Your task to perform on an android device: Go to wifi settings Image 0: 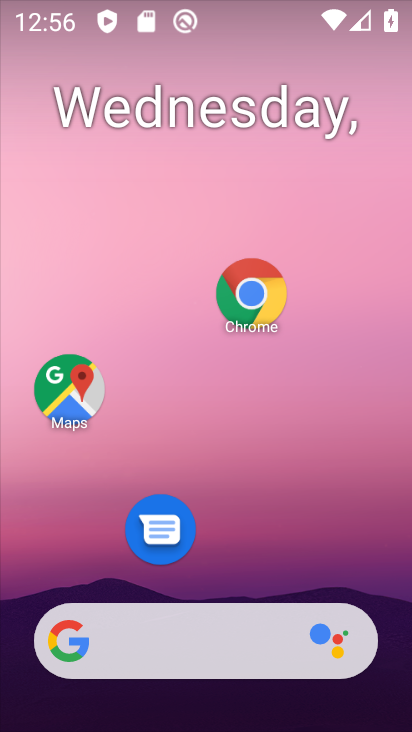
Step 0: drag from (191, 527) to (182, 110)
Your task to perform on an android device: Go to wifi settings Image 1: 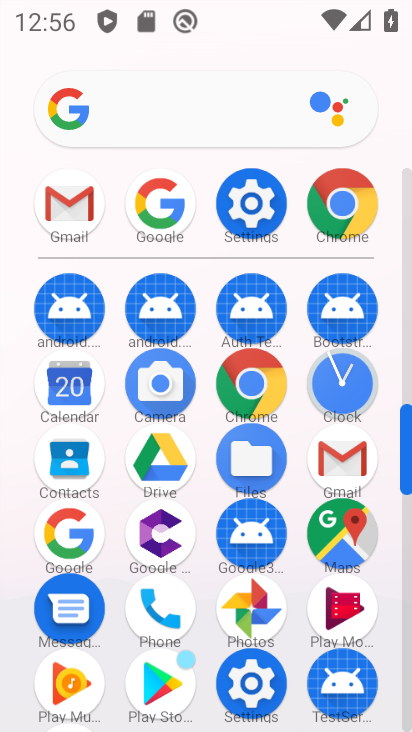
Step 1: click (266, 199)
Your task to perform on an android device: Go to wifi settings Image 2: 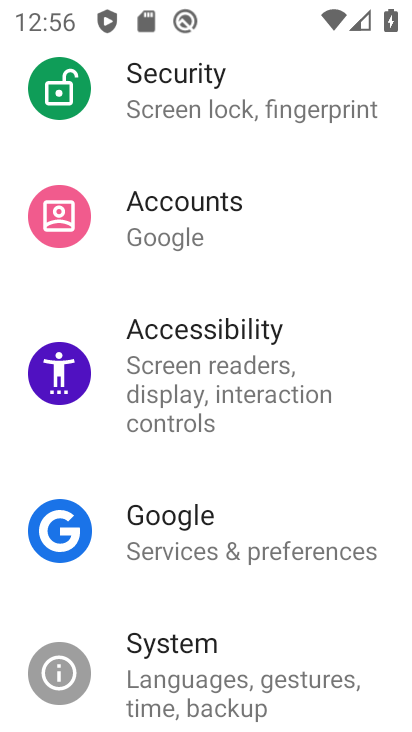
Step 2: drag from (266, 201) to (221, 631)
Your task to perform on an android device: Go to wifi settings Image 3: 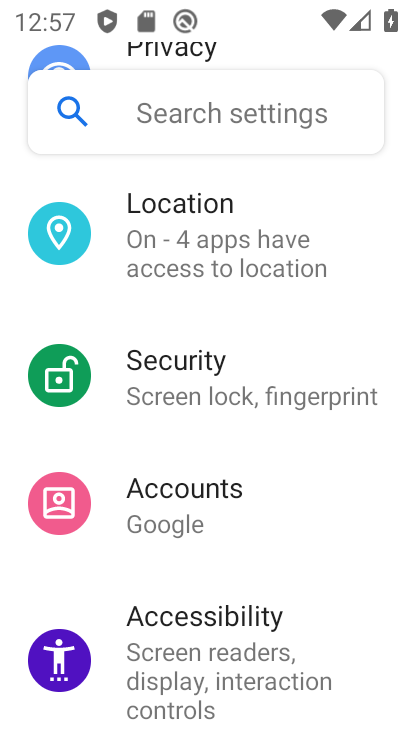
Step 3: drag from (299, 335) to (139, 625)
Your task to perform on an android device: Go to wifi settings Image 4: 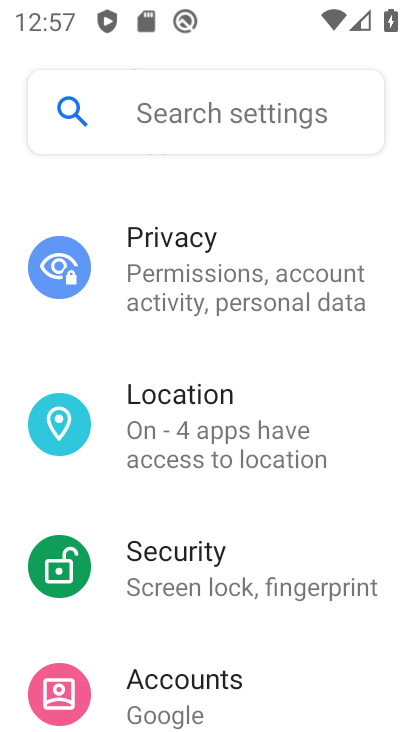
Step 4: drag from (257, 320) to (210, 643)
Your task to perform on an android device: Go to wifi settings Image 5: 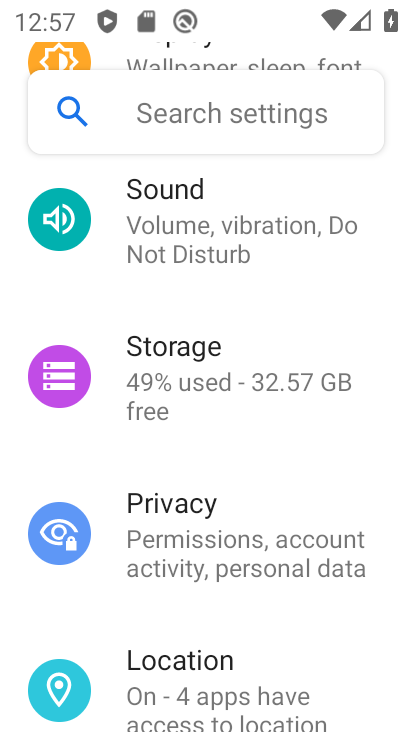
Step 5: drag from (282, 323) to (294, 721)
Your task to perform on an android device: Go to wifi settings Image 6: 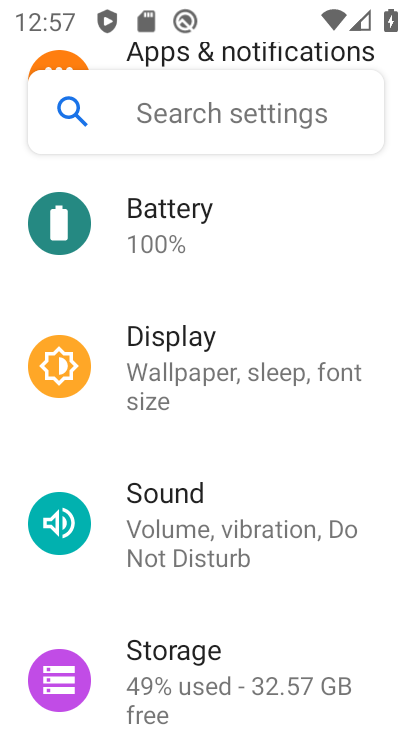
Step 6: drag from (162, 292) to (137, 603)
Your task to perform on an android device: Go to wifi settings Image 7: 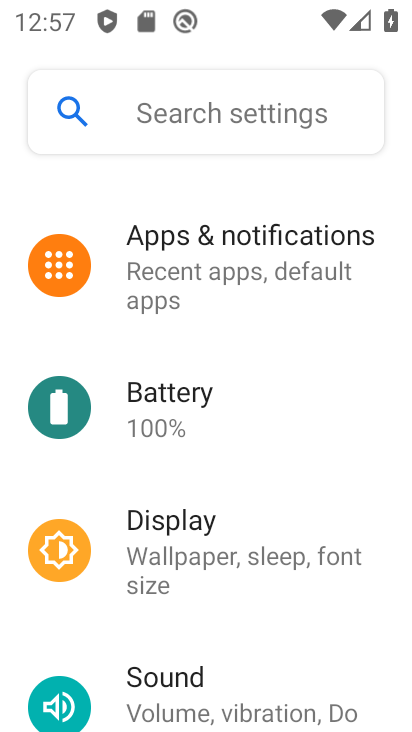
Step 7: drag from (204, 294) to (164, 589)
Your task to perform on an android device: Go to wifi settings Image 8: 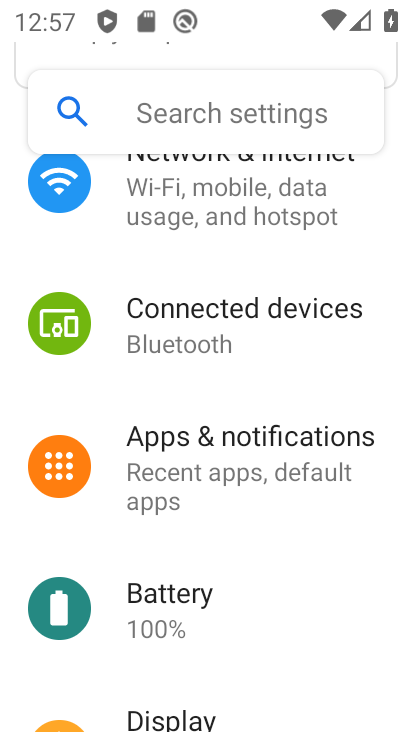
Step 8: drag from (229, 386) to (177, 604)
Your task to perform on an android device: Go to wifi settings Image 9: 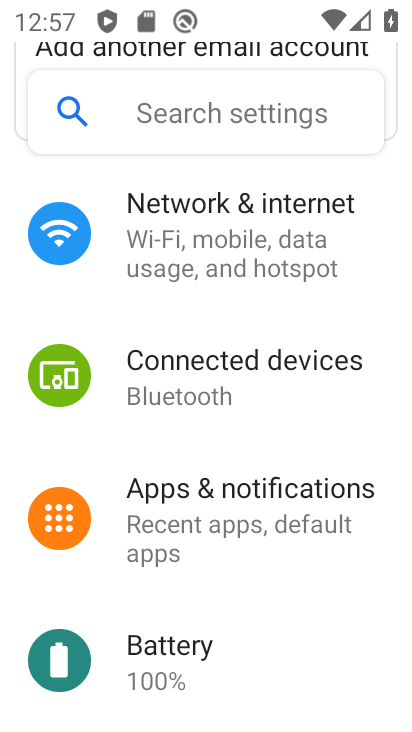
Step 9: drag from (235, 327) to (144, 648)
Your task to perform on an android device: Go to wifi settings Image 10: 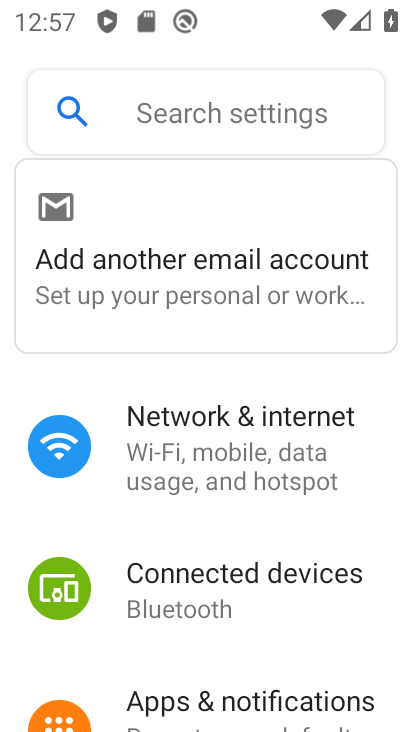
Step 10: click (154, 451)
Your task to perform on an android device: Go to wifi settings Image 11: 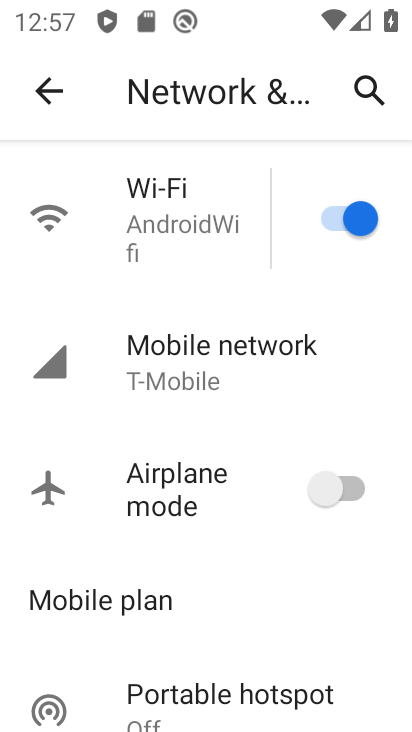
Step 11: click (172, 189)
Your task to perform on an android device: Go to wifi settings Image 12: 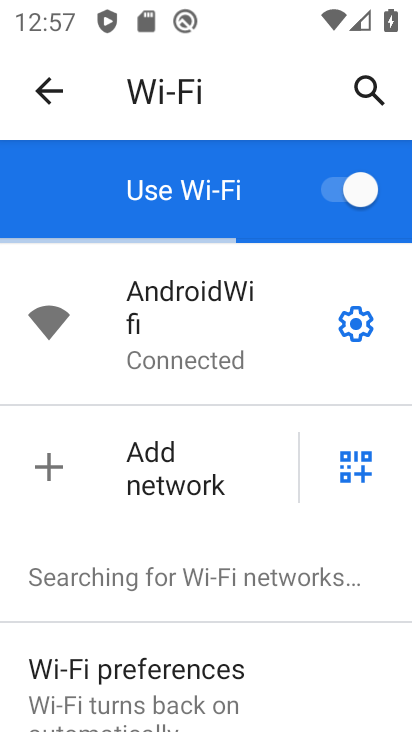
Step 12: task complete